Your task to perform on an android device: check google app version Image 0: 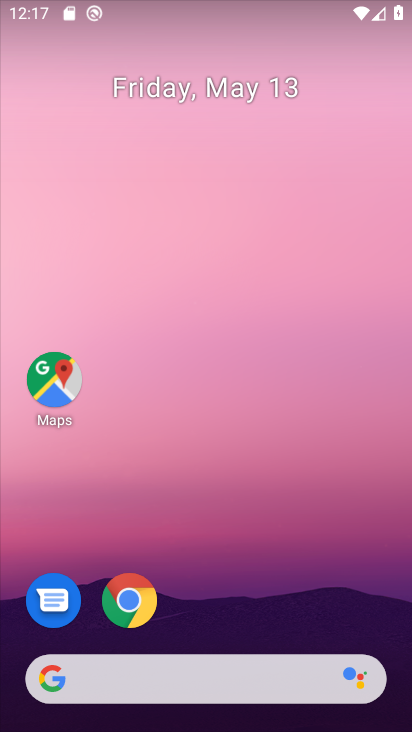
Step 0: drag from (224, 643) to (390, 106)
Your task to perform on an android device: check google app version Image 1: 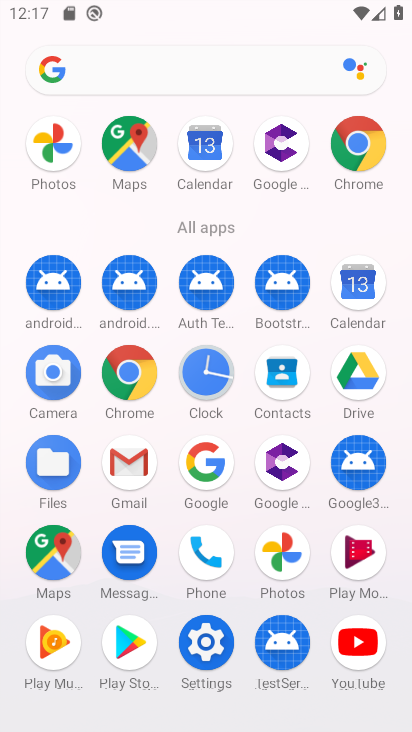
Step 1: drag from (213, 605) to (257, 391)
Your task to perform on an android device: check google app version Image 2: 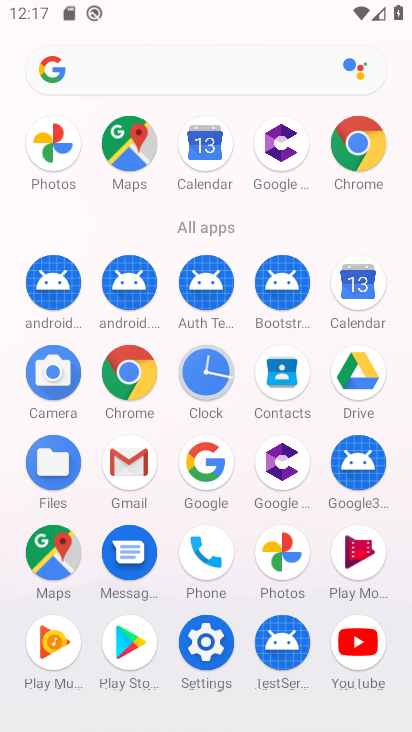
Step 2: click (207, 652)
Your task to perform on an android device: check google app version Image 3: 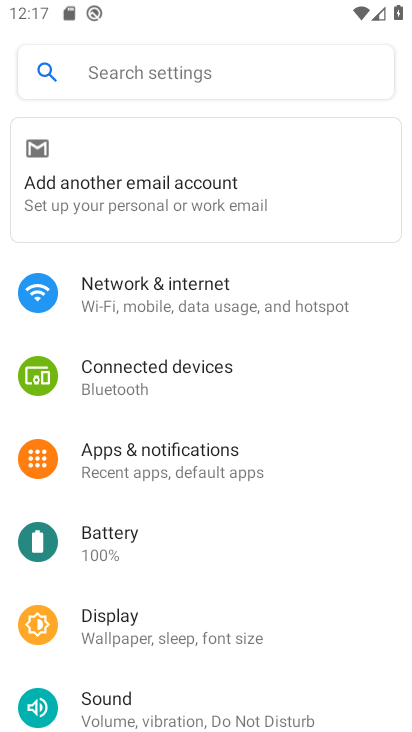
Step 3: drag from (186, 683) to (245, 458)
Your task to perform on an android device: check google app version Image 4: 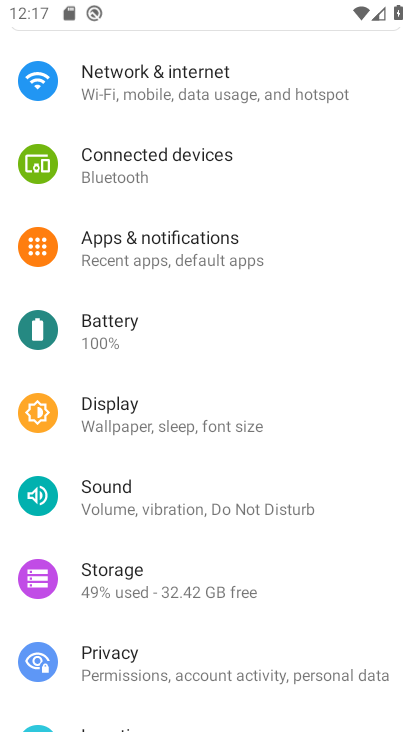
Step 4: click (178, 264)
Your task to perform on an android device: check google app version Image 5: 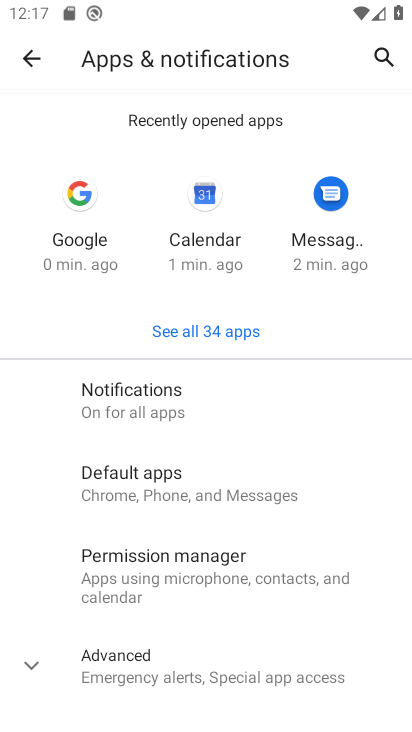
Step 5: click (213, 329)
Your task to perform on an android device: check google app version Image 6: 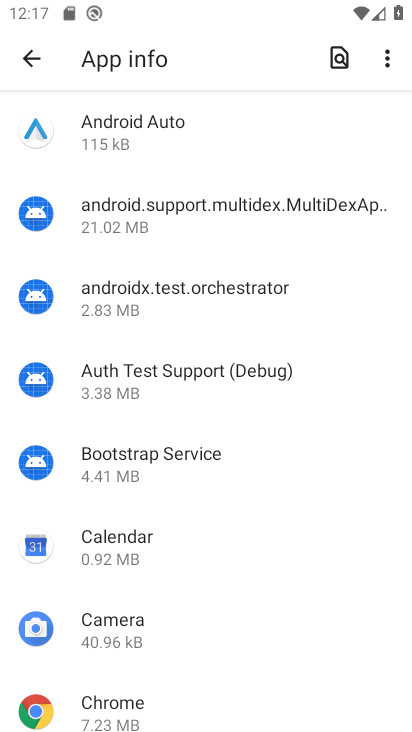
Step 6: drag from (216, 693) to (283, 409)
Your task to perform on an android device: check google app version Image 7: 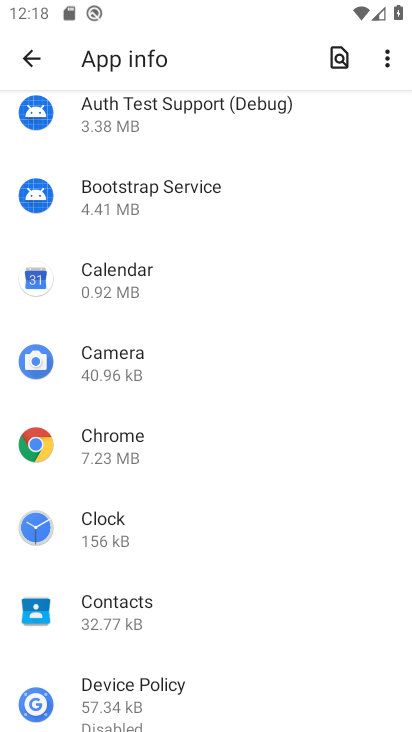
Step 7: drag from (136, 615) to (293, 217)
Your task to perform on an android device: check google app version Image 8: 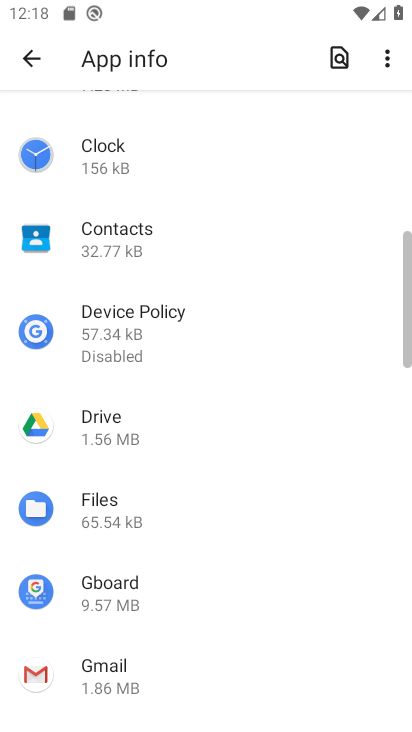
Step 8: drag from (227, 556) to (377, 176)
Your task to perform on an android device: check google app version Image 9: 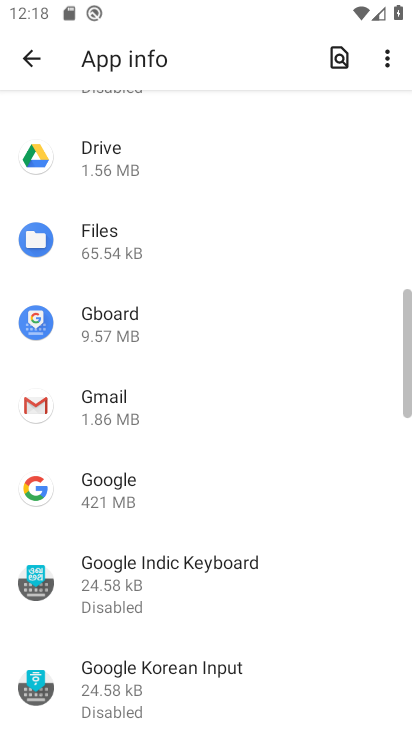
Step 9: click (150, 500)
Your task to perform on an android device: check google app version Image 10: 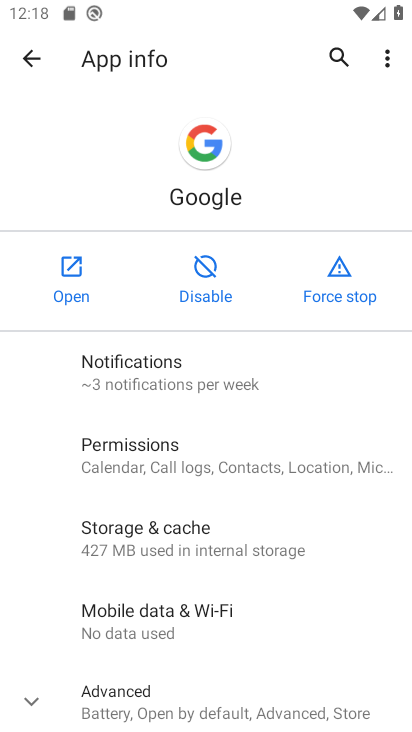
Step 10: drag from (134, 683) to (273, 365)
Your task to perform on an android device: check google app version Image 11: 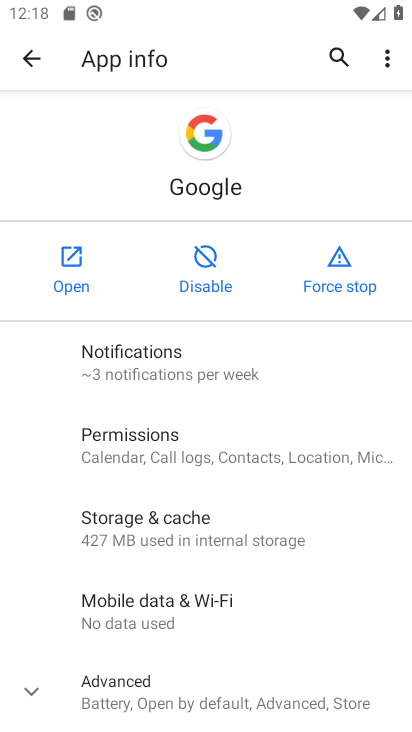
Step 11: drag from (222, 646) to (352, 307)
Your task to perform on an android device: check google app version Image 12: 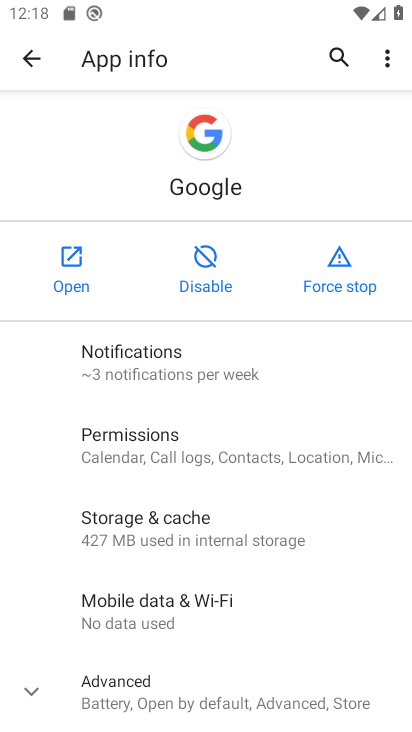
Step 12: drag from (212, 689) to (389, 332)
Your task to perform on an android device: check google app version Image 13: 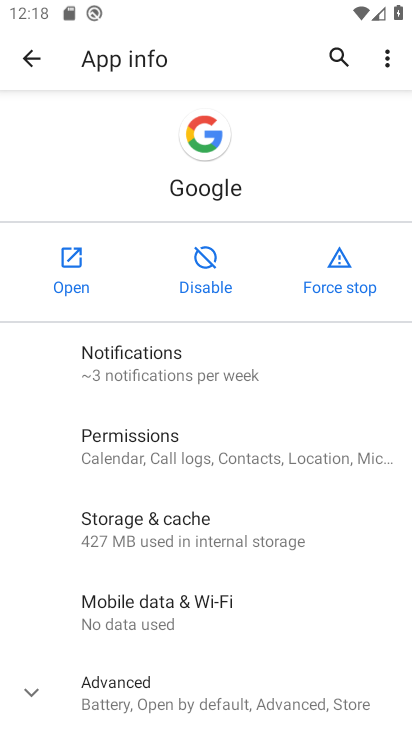
Step 13: drag from (211, 670) to (358, 349)
Your task to perform on an android device: check google app version Image 14: 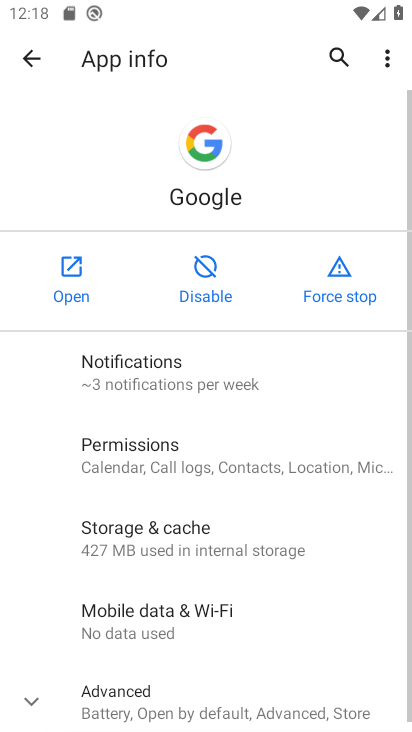
Step 14: click (244, 716)
Your task to perform on an android device: check google app version Image 15: 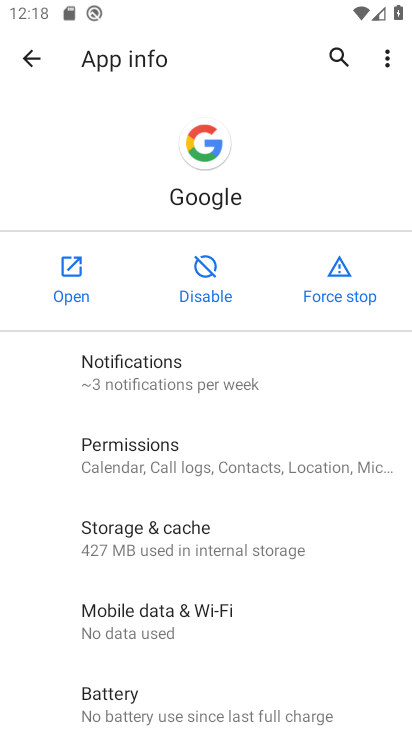
Step 15: task complete